Your task to perform on an android device: Go to Reddit.com Image 0: 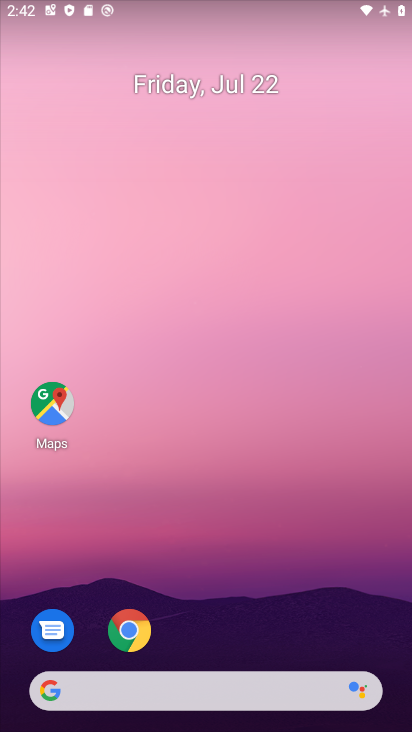
Step 0: drag from (210, 678) to (195, 44)
Your task to perform on an android device: Go to Reddit.com Image 1: 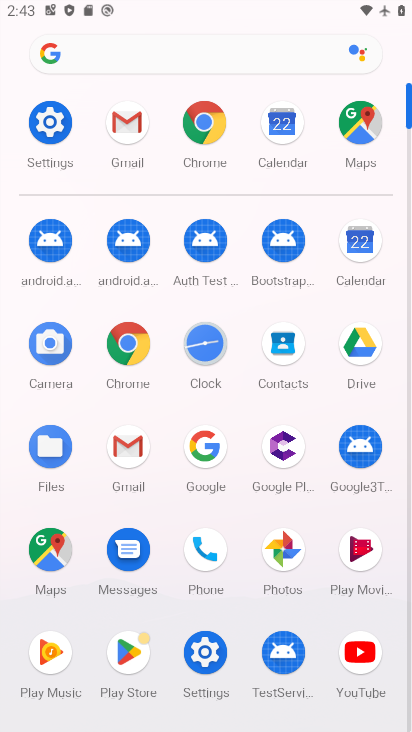
Step 1: click (134, 348)
Your task to perform on an android device: Go to Reddit.com Image 2: 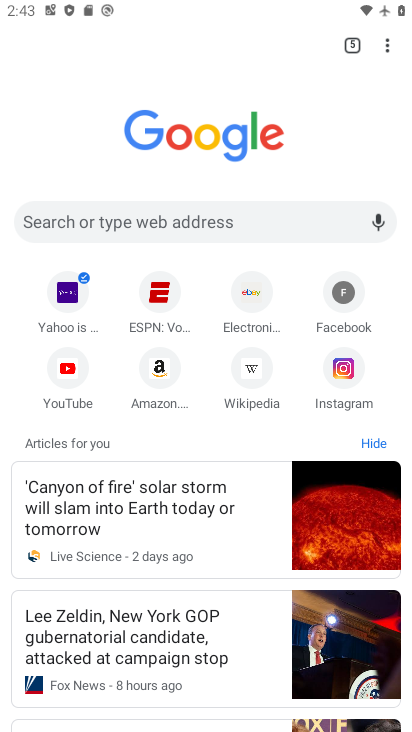
Step 2: click (220, 207)
Your task to perform on an android device: Go to Reddit.com Image 3: 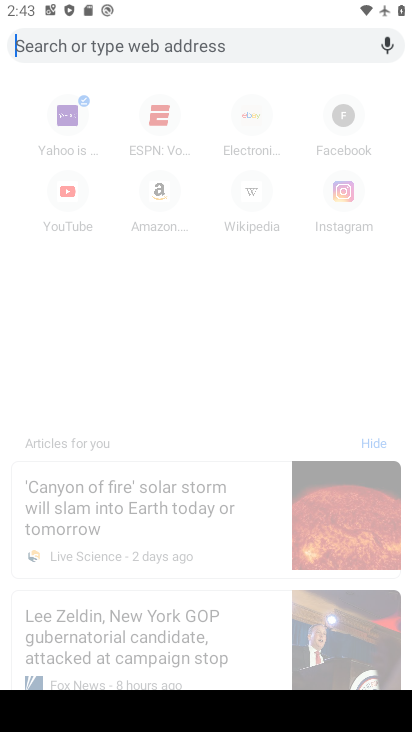
Step 3: type "reddit"
Your task to perform on an android device: Go to Reddit.com Image 4: 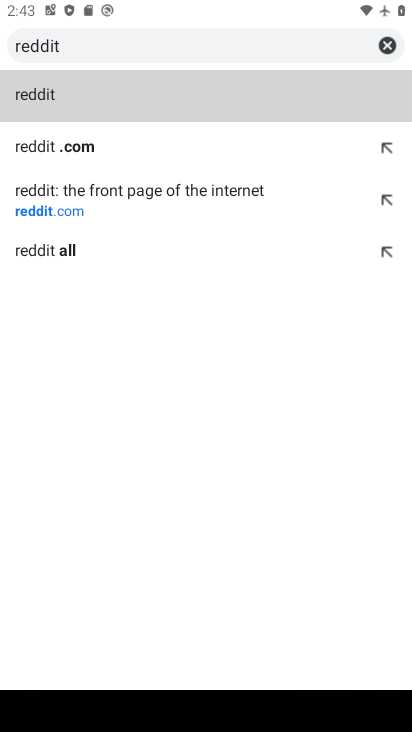
Step 4: click (99, 194)
Your task to perform on an android device: Go to Reddit.com Image 5: 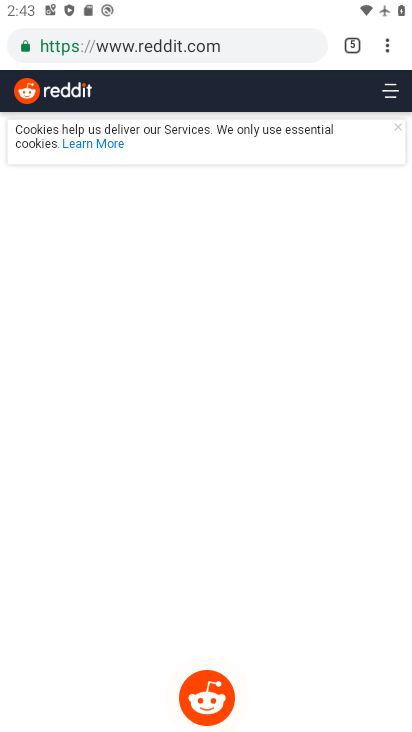
Step 5: task complete